Your task to perform on an android device: What's on my calendar today? Image 0: 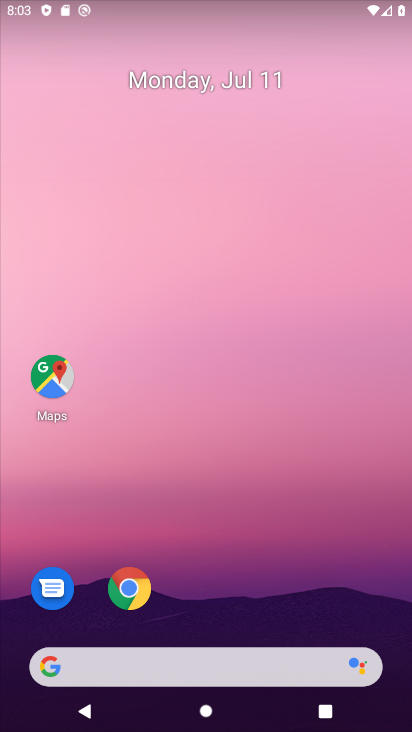
Step 0: drag from (253, 649) to (13, 435)
Your task to perform on an android device: What's on my calendar today? Image 1: 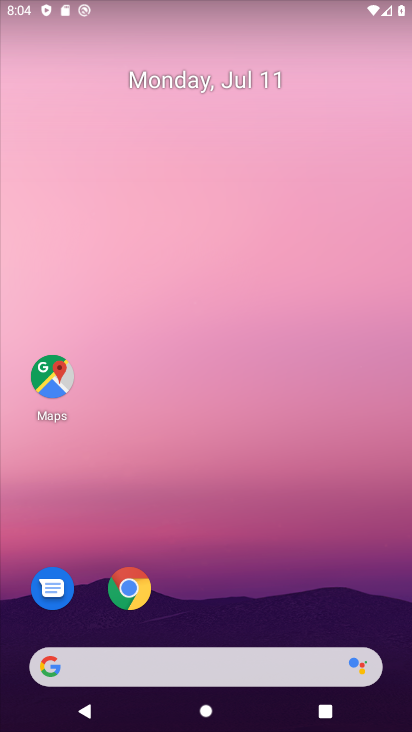
Step 1: drag from (257, 634) to (189, 11)
Your task to perform on an android device: What's on my calendar today? Image 2: 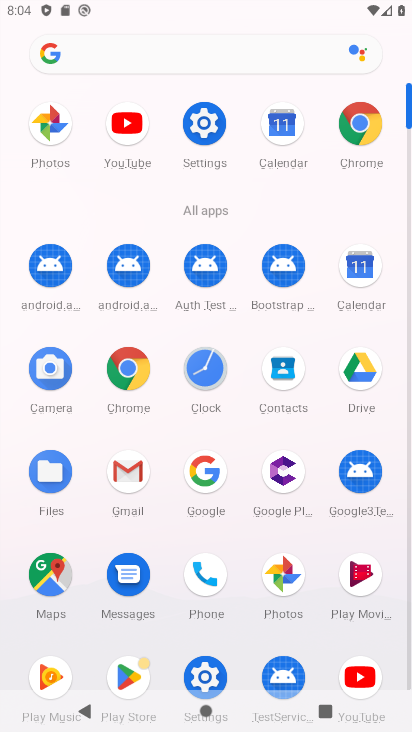
Step 2: click (362, 272)
Your task to perform on an android device: What's on my calendar today? Image 3: 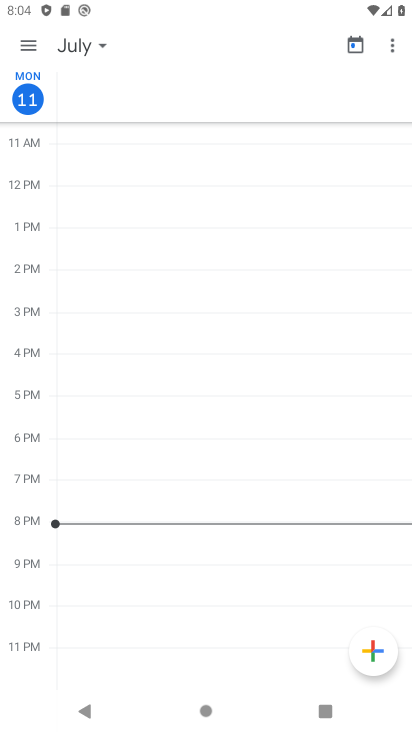
Step 3: task complete